Your task to perform on an android device: Open calendar and show me the second week of next month Image 0: 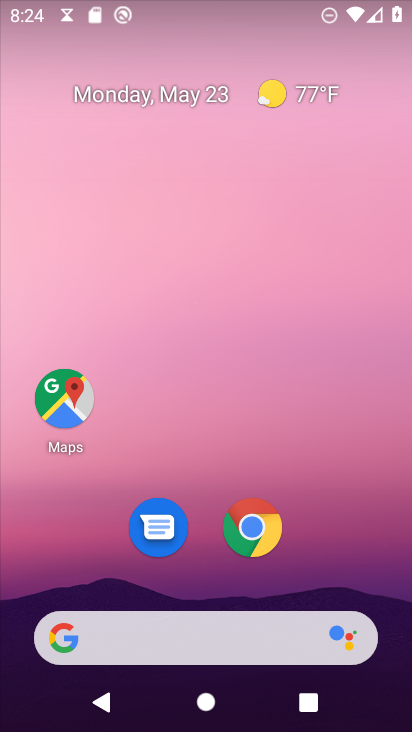
Step 0: drag from (319, 681) to (234, 103)
Your task to perform on an android device: Open calendar and show me the second week of next month Image 1: 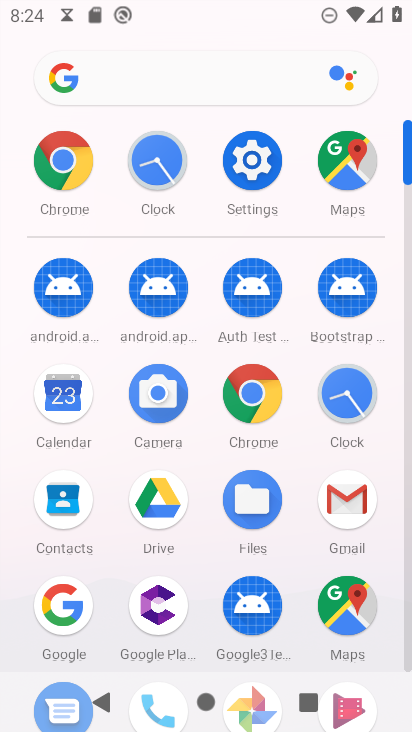
Step 1: click (62, 411)
Your task to perform on an android device: Open calendar and show me the second week of next month Image 2: 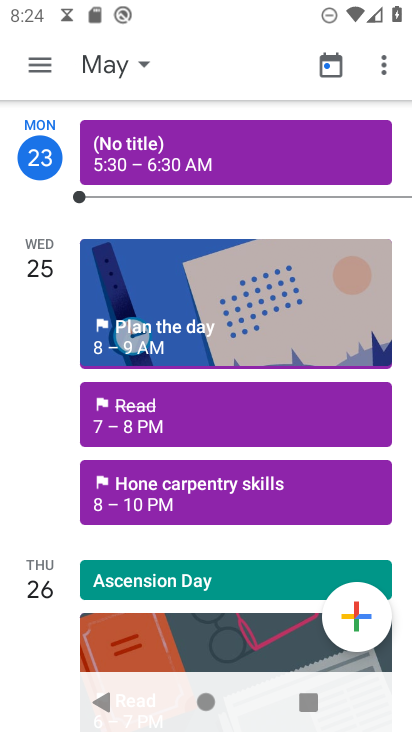
Step 2: click (31, 79)
Your task to perform on an android device: Open calendar and show me the second week of next month Image 3: 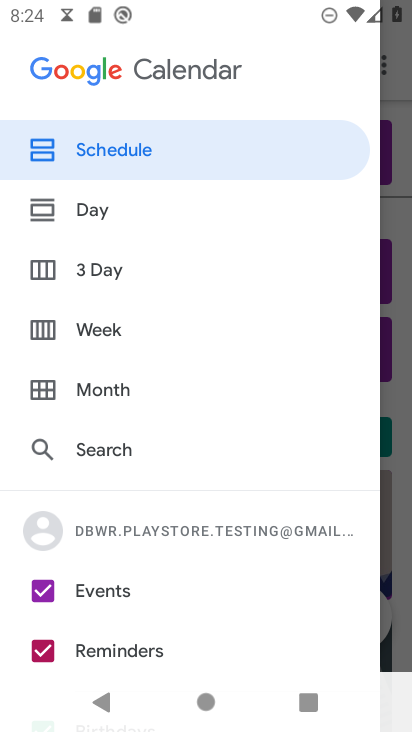
Step 3: click (119, 393)
Your task to perform on an android device: Open calendar and show me the second week of next month Image 4: 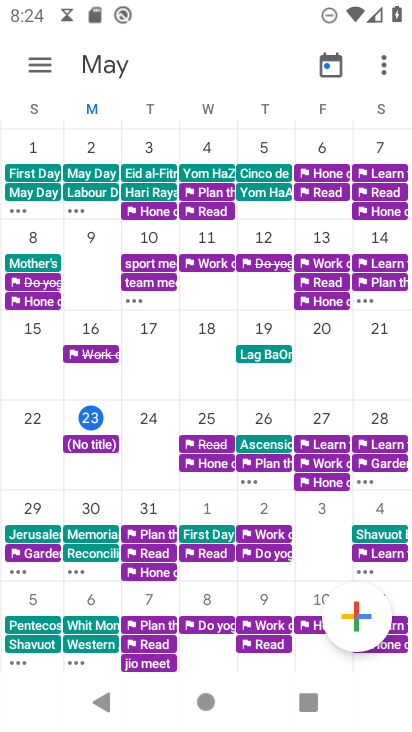
Step 4: click (41, 58)
Your task to perform on an android device: Open calendar and show me the second week of next month Image 5: 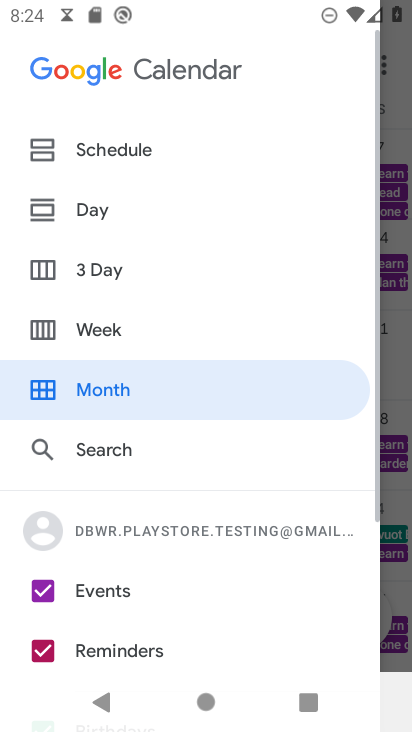
Step 5: click (403, 320)
Your task to perform on an android device: Open calendar and show me the second week of next month Image 6: 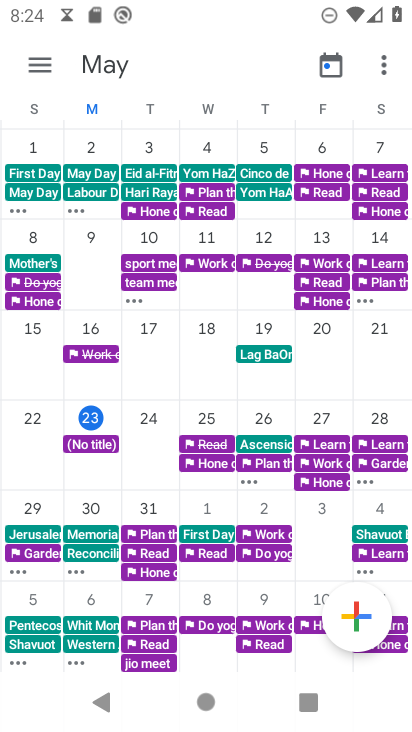
Step 6: drag from (391, 341) to (39, 344)
Your task to perform on an android device: Open calendar and show me the second week of next month Image 7: 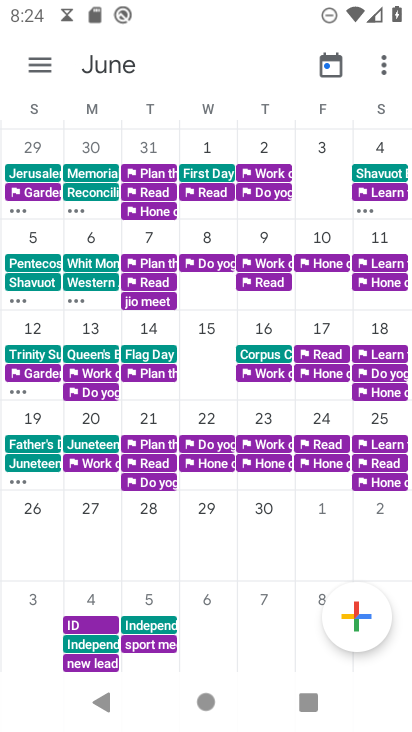
Step 7: click (83, 241)
Your task to perform on an android device: Open calendar and show me the second week of next month Image 8: 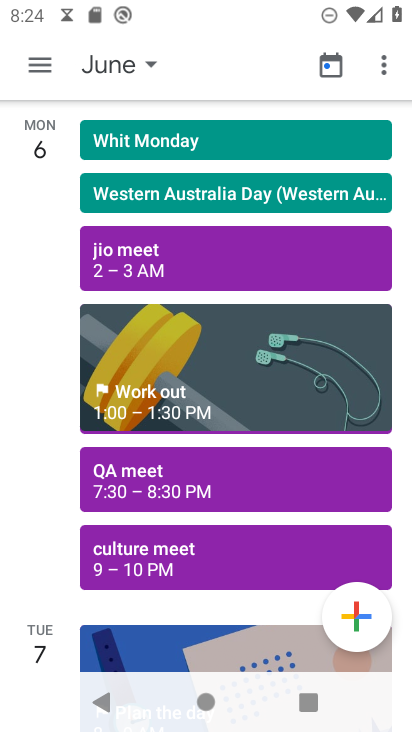
Step 8: task complete